Your task to perform on an android device: turn on javascript in the chrome app Image 0: 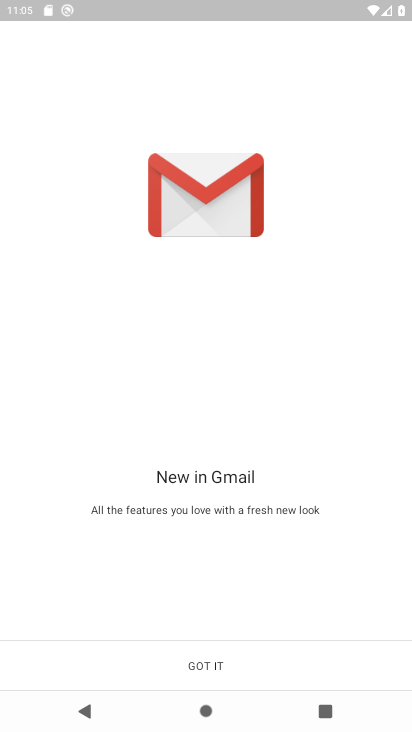
Step 0: press home button
Your task to perform on an android device: turn on javascript in the chrome app Image 1: 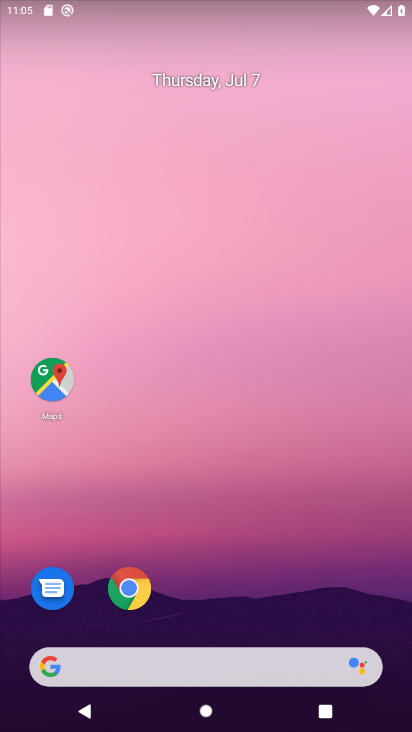
Step 1: click (128, 597)
Your task to perform on an android device: turn on javascript in the chrome app Image 2: 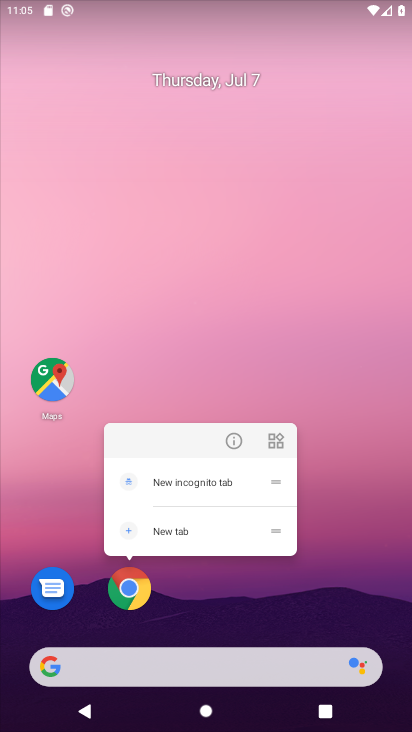
Step 2: click (136, 583)
Your task to perform on an android device: turn on javascript in the chrome app Image 3: 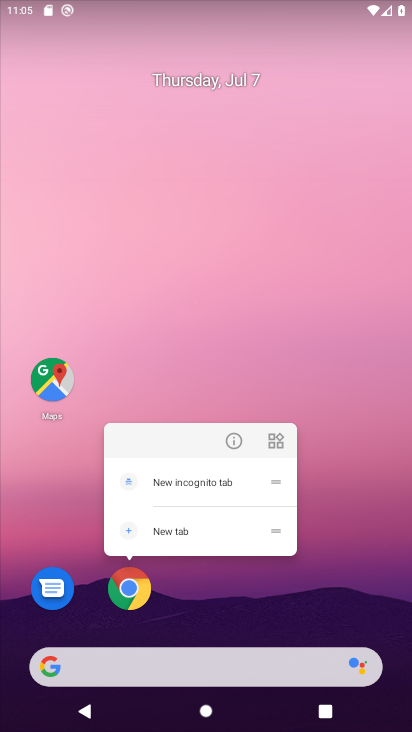
Step 3: click (127, 586)
Your task to perform on an android device: turn on javascript in the chrome app Image 4: 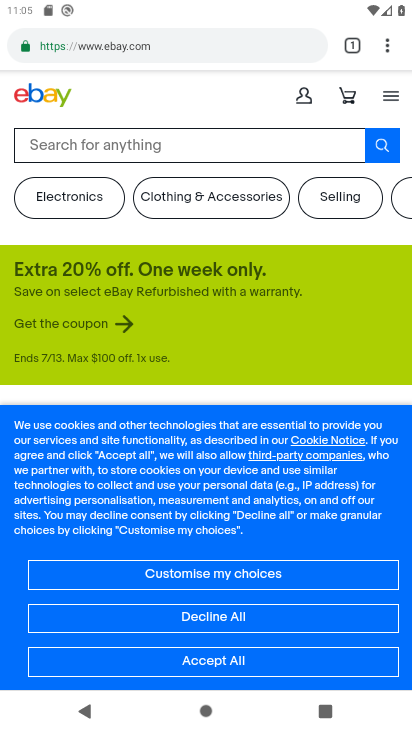
Step 4: drag from (388, 47) to (240, 556)
Your task to perform on an android device: turn on javascript in the chrome app Image 5: 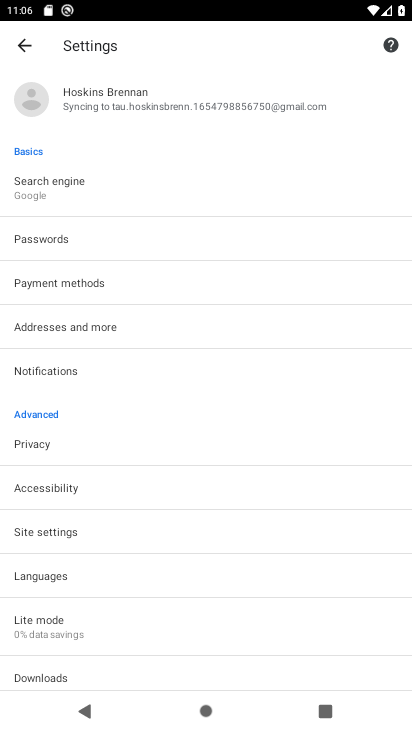
Step 5: click (49, 531)
Your task to perform on an android device: turn on javascript in the chrome app Image 6: 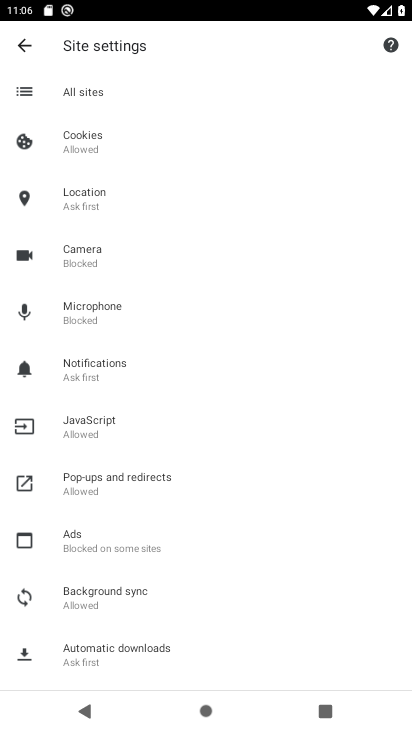
Step 6: click (91, 417)
Your task to perform on an android device: turn on javascript in the chrome app Image 7: 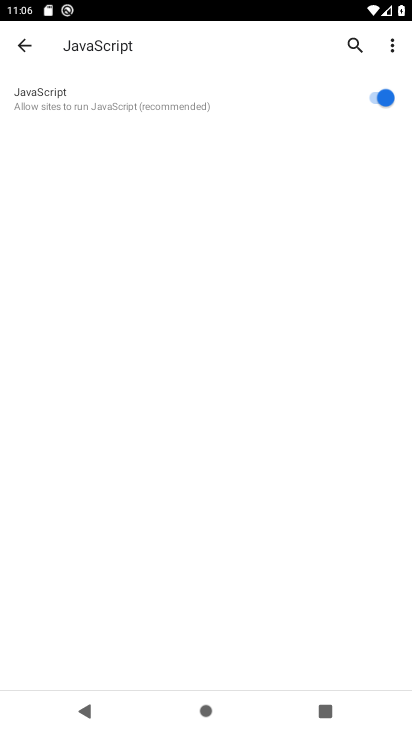
Step 7: task complete